Your task to perform on an android device: Go to privacy settings Image 0: 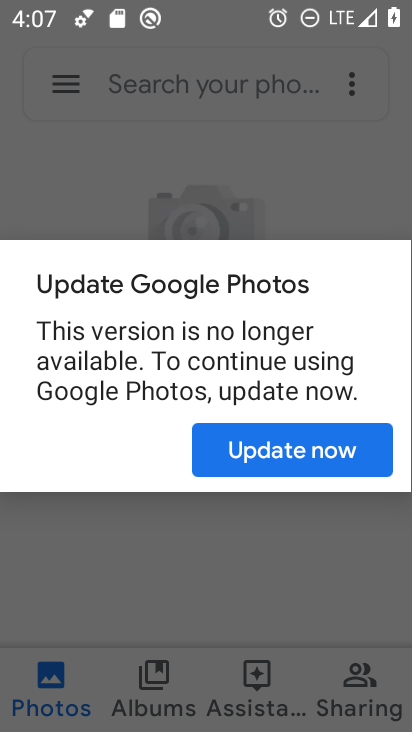
Step 0: press back button
Your task to perform on an android device: Go to privacy settings Image 1: 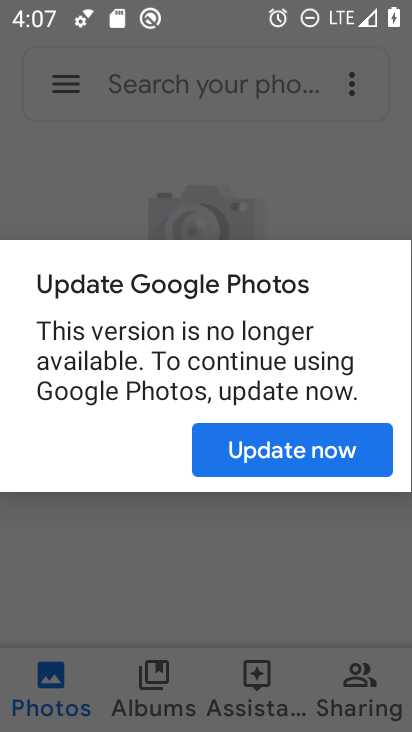
Step 1: press home button
Your task to perform on an android device: Go to privacy settings Image 2: 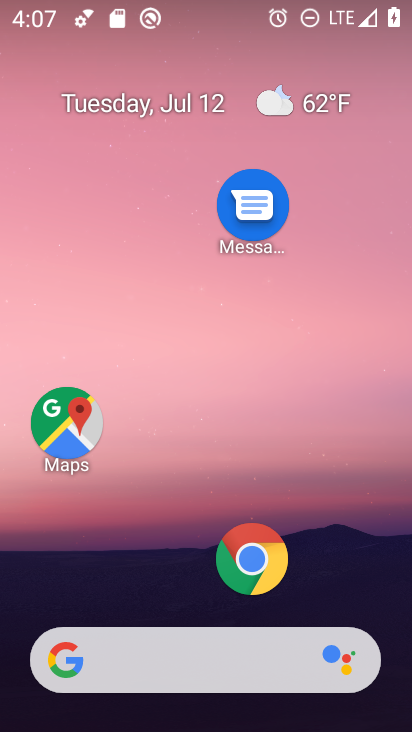
Step 2: drag from (153, 645) to (268, 0)
Your task to perform on an android device: Go to privacy settings Image 3: 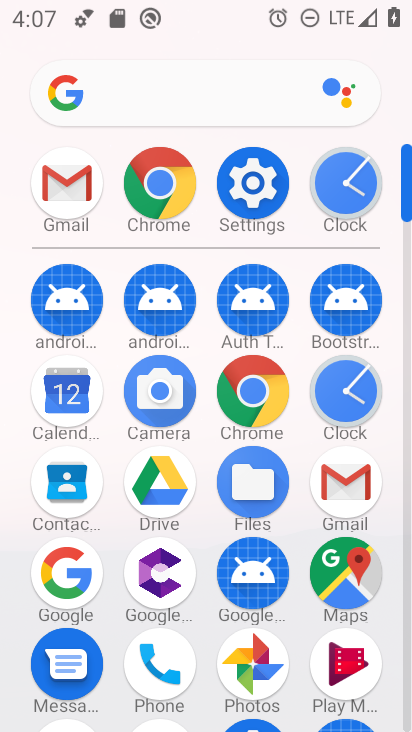
Step 3: click (156, 176)
Your task to perform on an android device: Go to privacy settings Image 4: 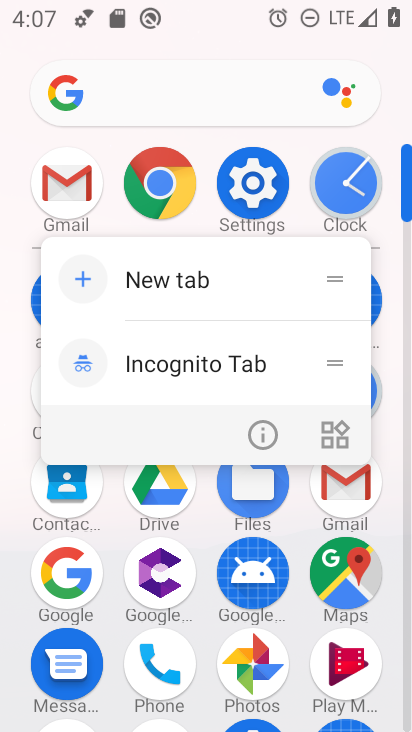
Step 4: click (168, 183)
Your task to perform on an android device: Go to privacy settings Image 5: 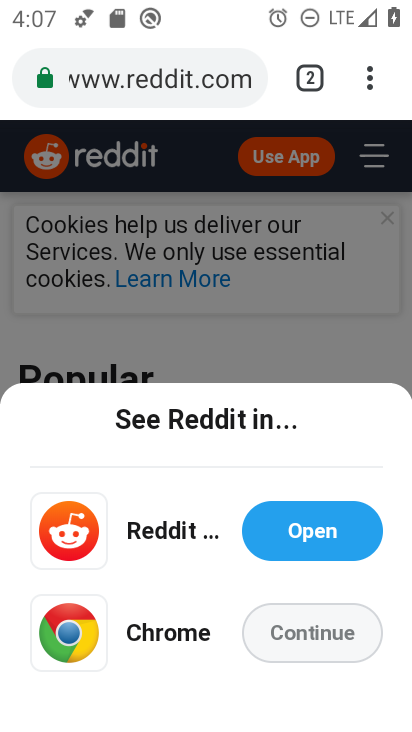
Step 5: drag from (379, 77) to (118, 612)
Your task to perform on an android device: Go to privacy settings Image 6: 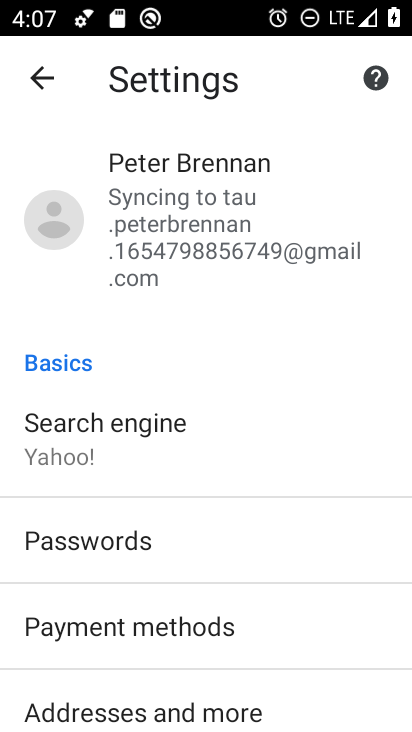
Step 6: drag from (130, 669) to (217, 99)
Your task to perform on an android device: Go to privacy settings Image 7: 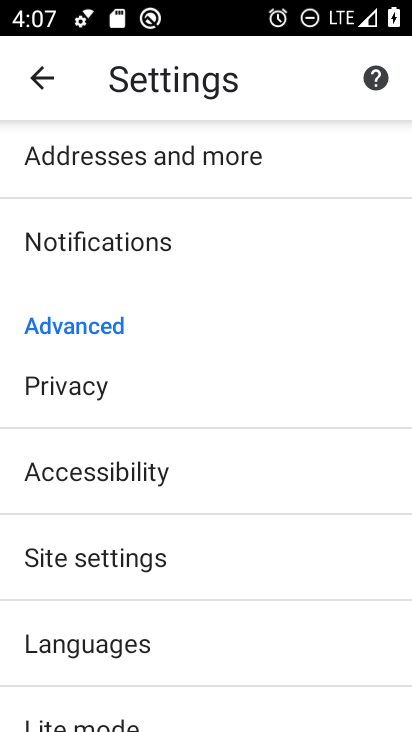
Step 7: click (46, 366)
Your task to perform on an android device: Go to privacy settings Image 8: 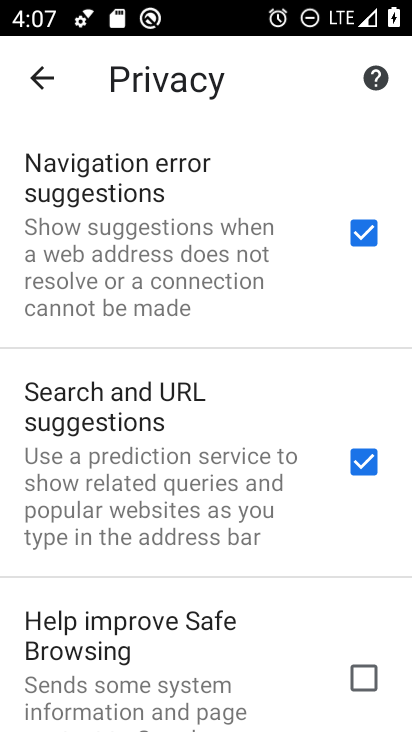
Step 8: task complete